Your task to perform on an android device: toggle show notifications on the lock screen Image 0: 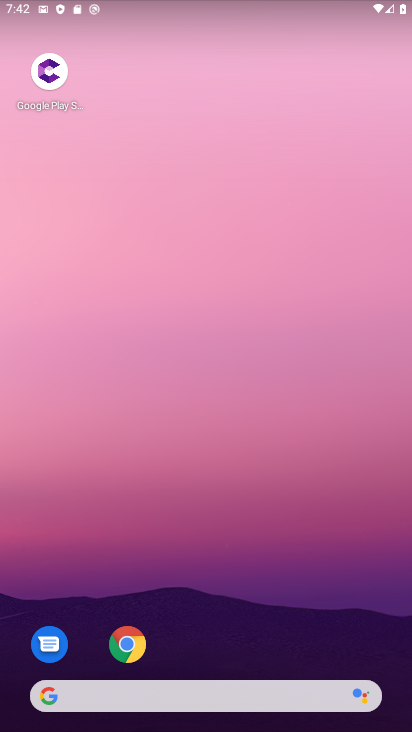
Step 0: drag from (40, 518) to (291, 61)
Your task to perform on an android device: toggle show notifications on the lock screen Image 1: 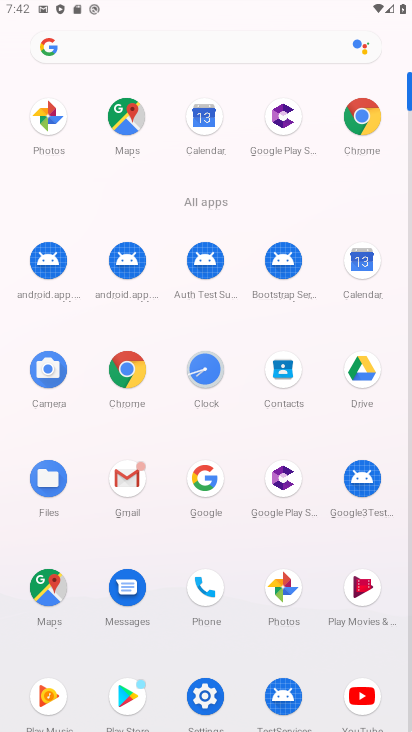
Step 1: click (201, 703)
Your task to perform on an android device: toggle show notifications on the lock screen Image 2: 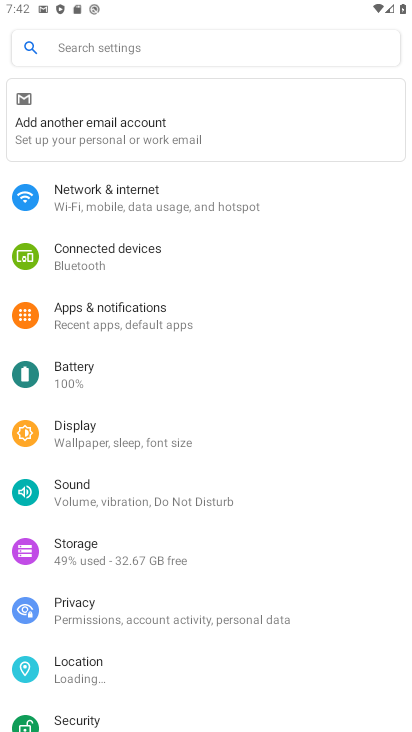
Step 2: click (183, 328)
Your task to perform on an android device: toggle show notifications on the lock screen Image 3: 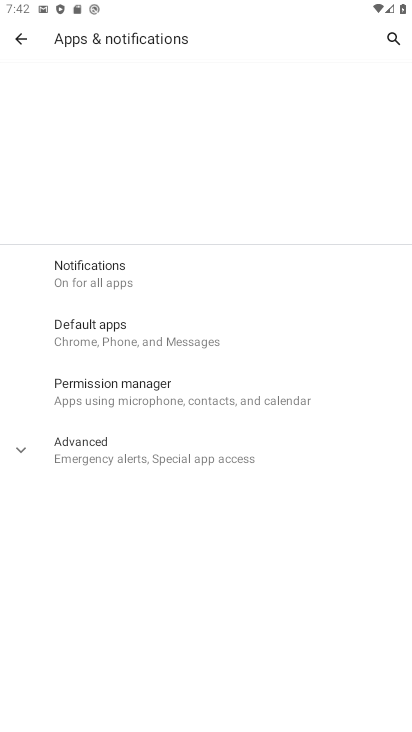
Step 3: click (197, 272)
Your task to perform on an android device: toggle show notifications on the lock screen Image 4: 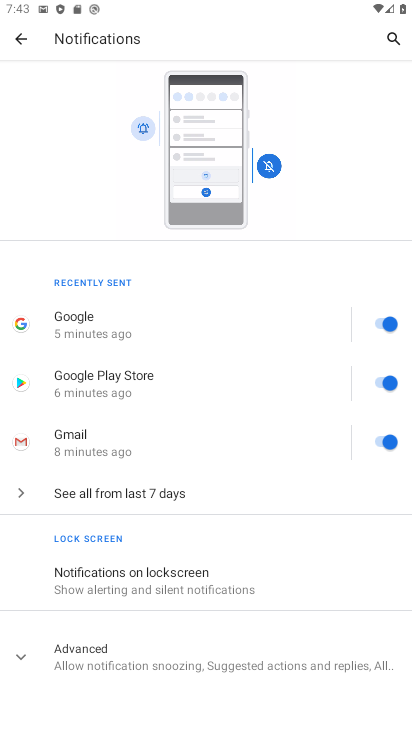
Step 4: click (180, 661)
Your task to perform on an android device: toggle show notifications on the lock screen Image 5: 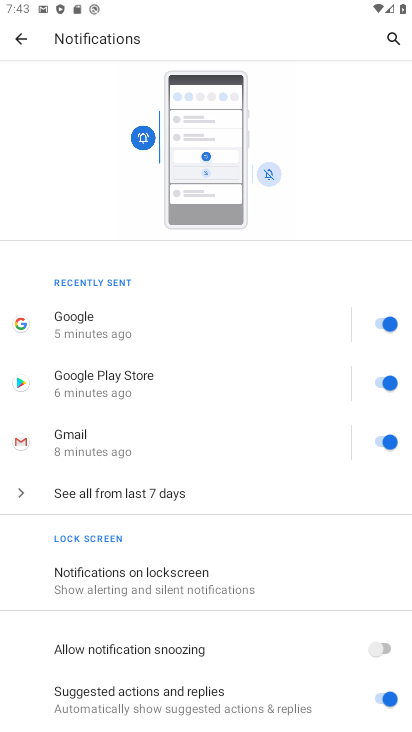
Step 5: click (221, 577)
Your task to perform on an android device: toggle show notifications on the lock screen Image 6: 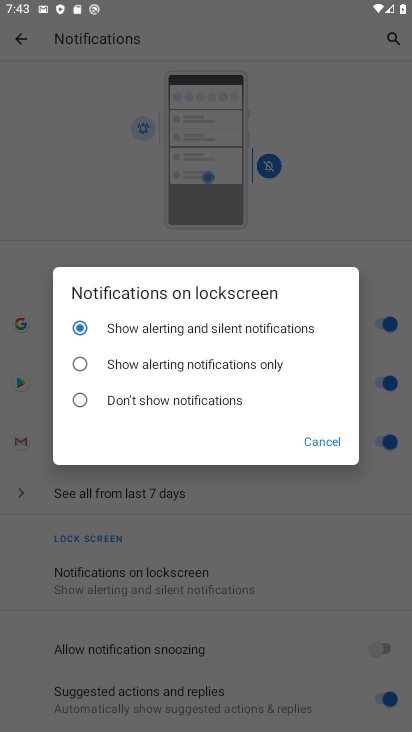
Step 6: click (152, 359)
Your task to perform on an android device: toggle show notifications on the lock screen Image 7: 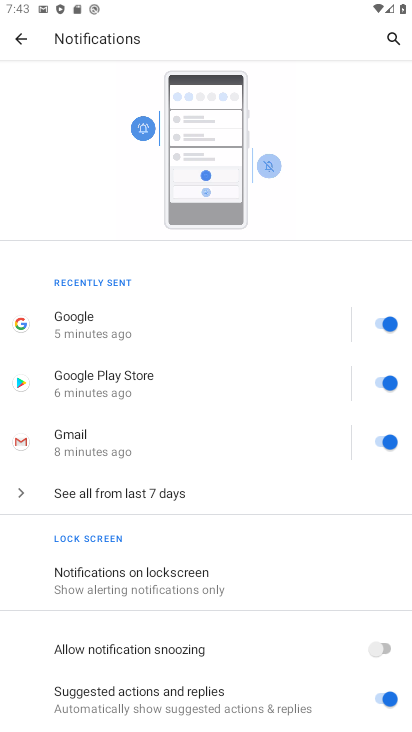
Step 7: task complete